Your task to perform on an android device: Open Youtube and go to the subscriptions tab Image 0: 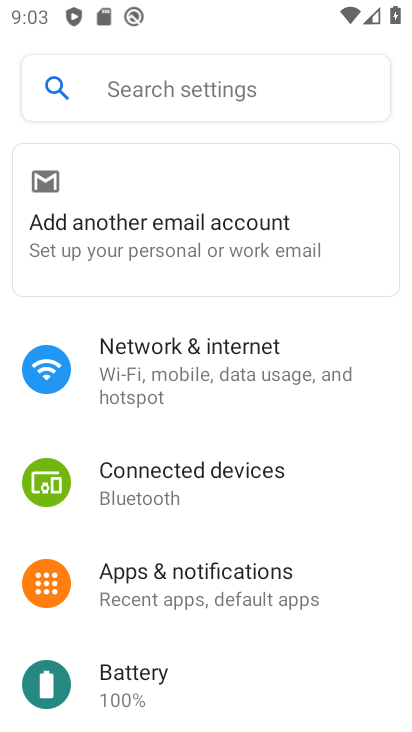
Step 0: press home button
Your task to perform on an android device: Open Youtube and go to the subscriptions tab Image 1: 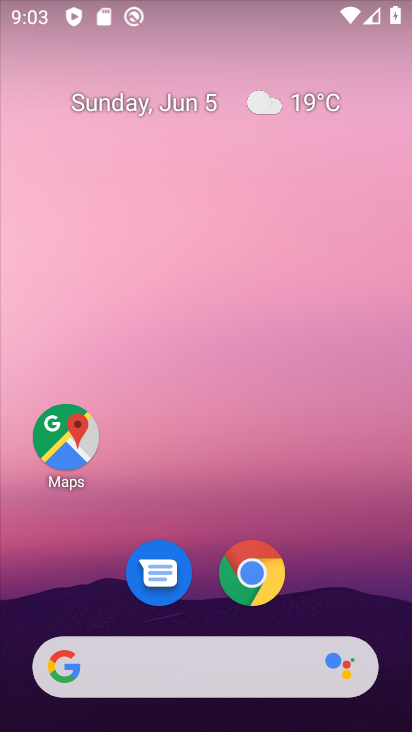
Step 1: drag from (219, 720) to (224, 123)
Your task to perform on an android device: Open Youtube and go to the subscriptions tab Image 2: 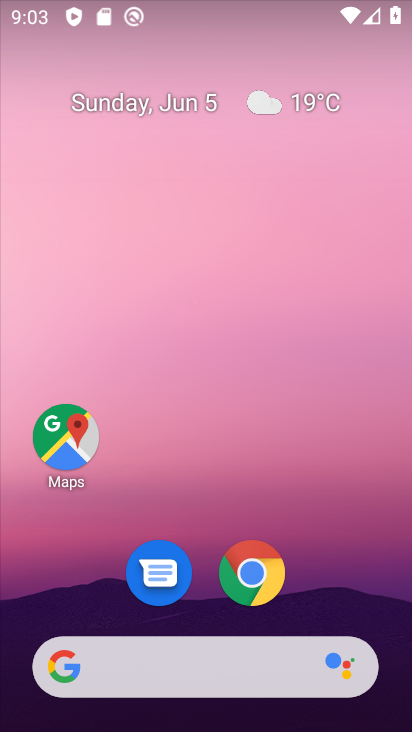
Step 2: drag from (222, 726) to (229, 79)
Your task to perform on an android device: Open Youtube and go to the subscriptions tab Image 3: 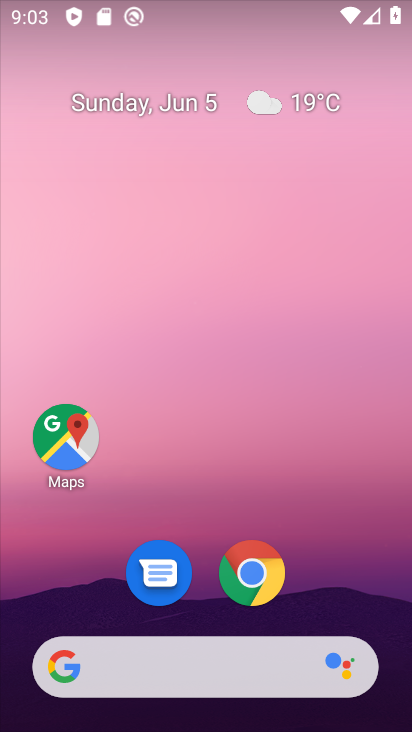
Step 3: drag from (218, 726) to (254, 107)
Your task to perform on an android device: Open Youtube and go to the subscriptions tab Image 4: 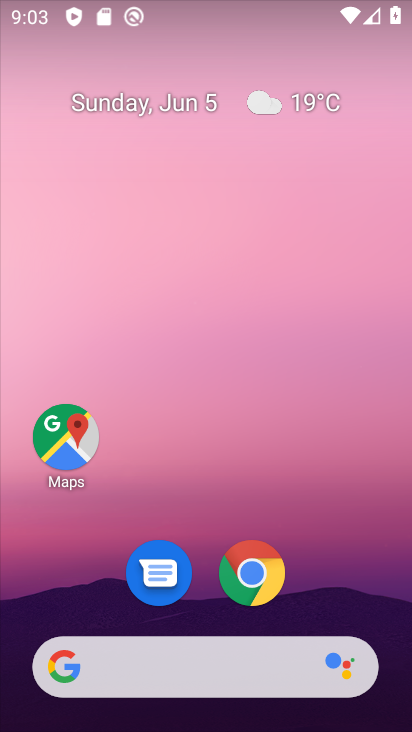
Step 4: drag from (233, 723) to (241, 13)
Your task to perform on an android device: Open Youtube and go to the subscriptions tab Image 5: 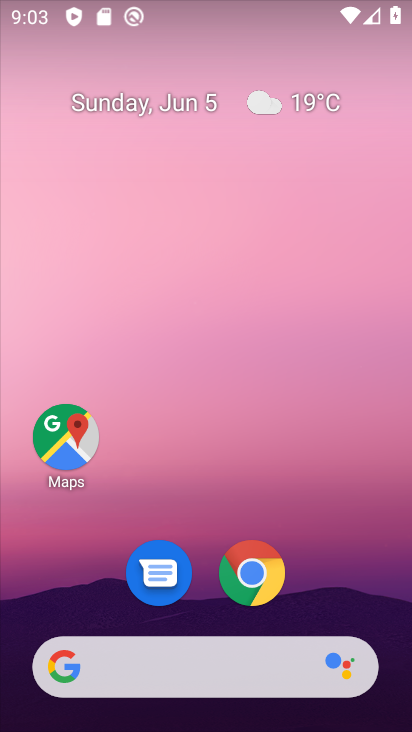
Step 5: drag from (221, 723) to (224, 133)
Your task to perform on an android device: Open Youtube and go to the subscriptions tab Image 6: 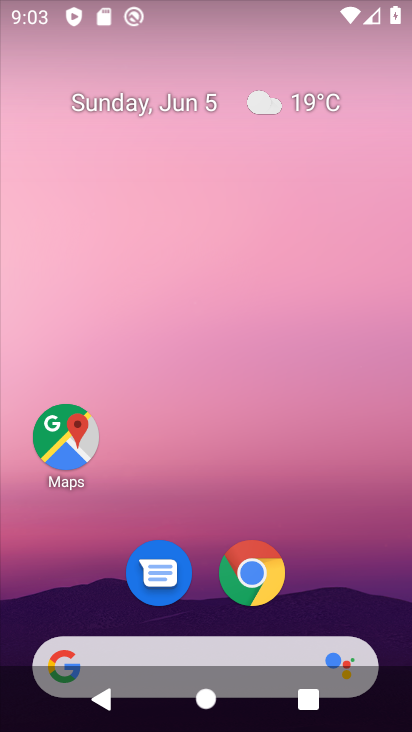
Step 6: drag from (239, 724) to (241, 121)
Your task to perform on an android device: Open Youtube and go to the subscriptions tab Image 7: 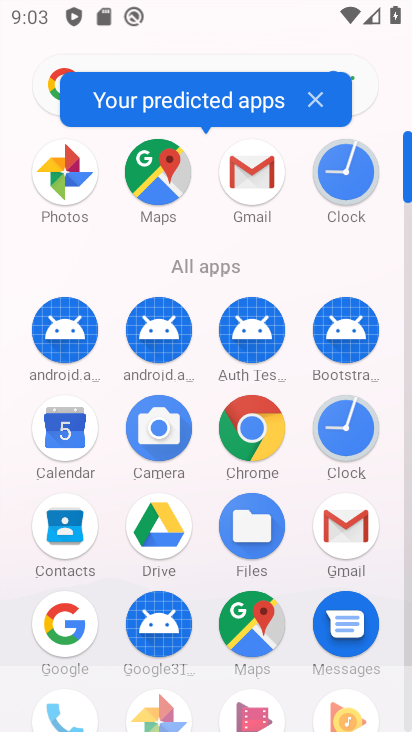
Step 7: drag from (297, 671) to (296, 284)
Your task to perform on an android device: Open Youtube and go to the subscriptions tab Image 8: 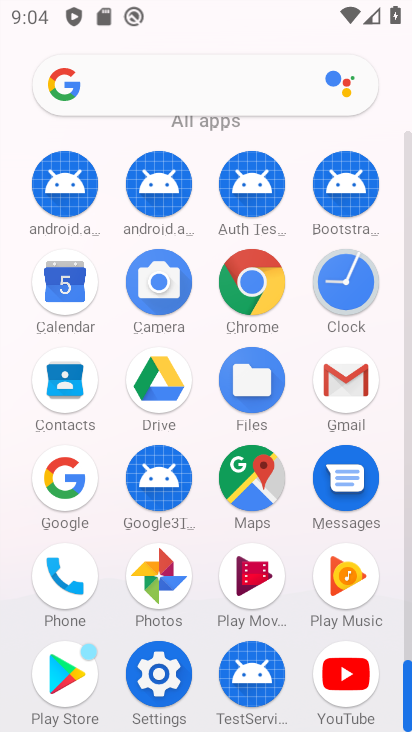
Step 8: click (348, 672)
Your task to perform on an android device: Open Youtube and go to the subscriptions tab Image 9: 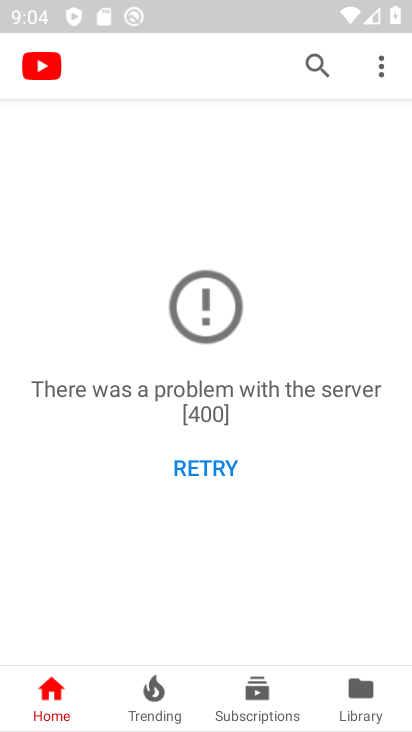
Step 9: click (255, 698)
Your task to perform on an android device: Open Youtube and go to the subscriptions tab Image 10: 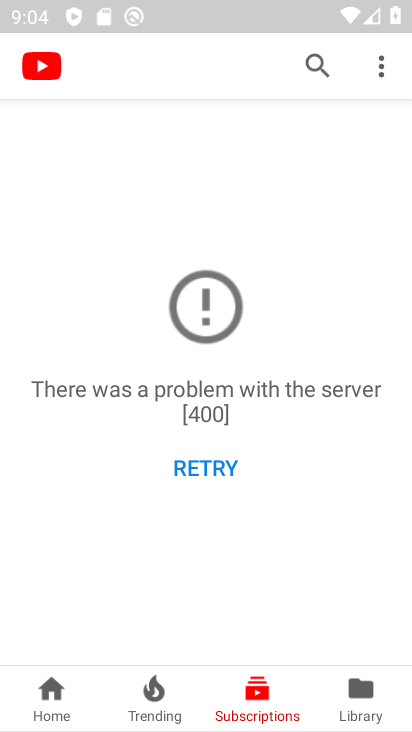
Step 10: task complete